Your task to perform on an android device: change timer sound Image 0: 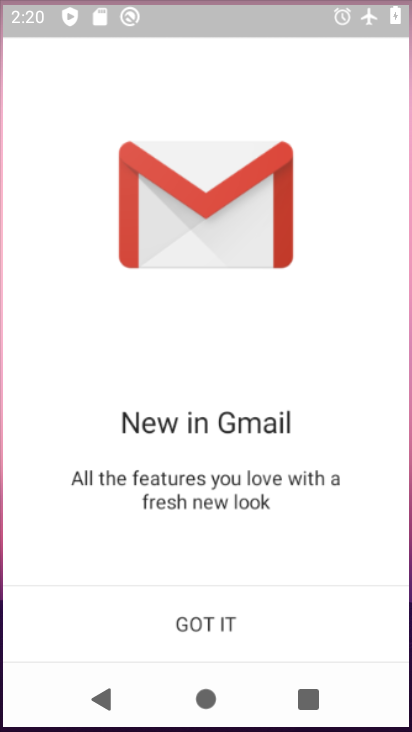
Step 0: drag from (378, 545) to (384, 10)
Your task to perform on an android device: change timer sound Image 1: 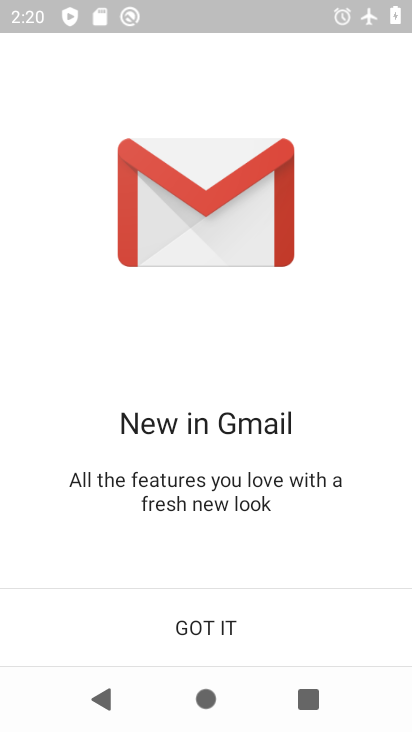
Step 1: press home button
Your task to perform on an android device: change timer sound Image 2: 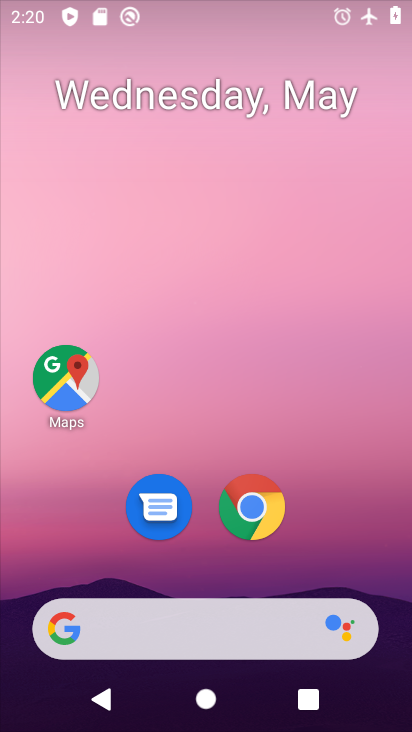
Step 2: drag from (346, 548) to (294, 136)
Your task to perform on an android device: change timer sound Image 3: 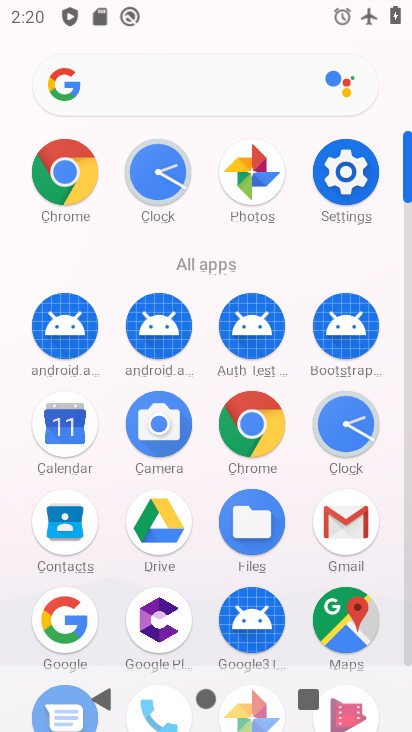
Step 3: click (342, 434)
Your task to perform on an android device: change timer sound Image 4: 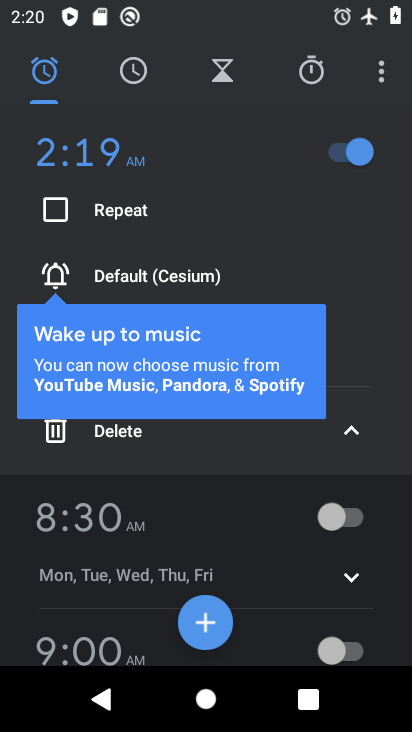
Step 4: drag from (380, 71) to (282, 143)
Your task to perform on an android device: change timer sound Image 5: 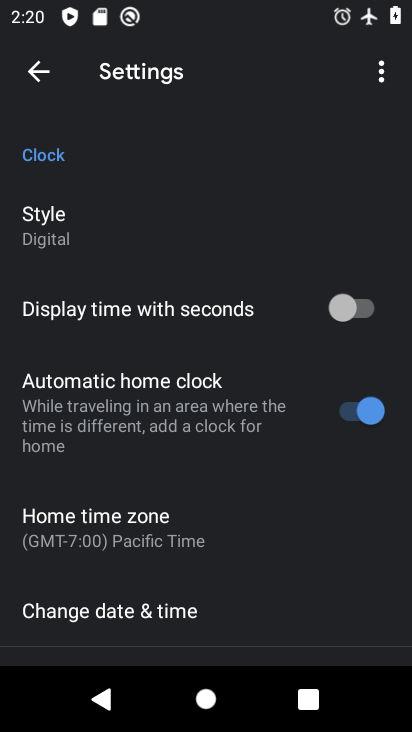
Step 5: drag from (211, 583) to (218, 282)
Your task to perform on an android device: change timer sound Image 6: 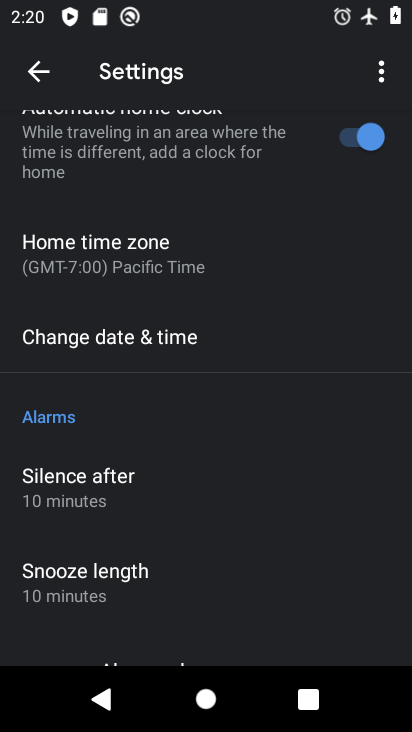
Step 6: drag from (177, 527) to (186, 235)
Your task to perform on an android device: change timer sound Image 7: 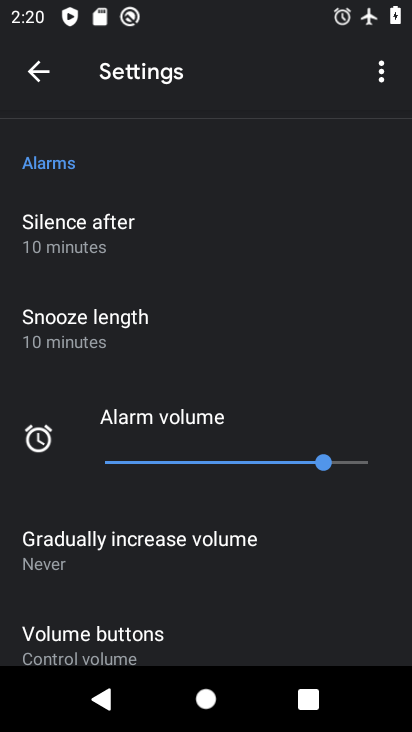
Step 7: drag from (217, 555) to (222, 221)
Your task to perform on an android device: change timer sound Image 8: 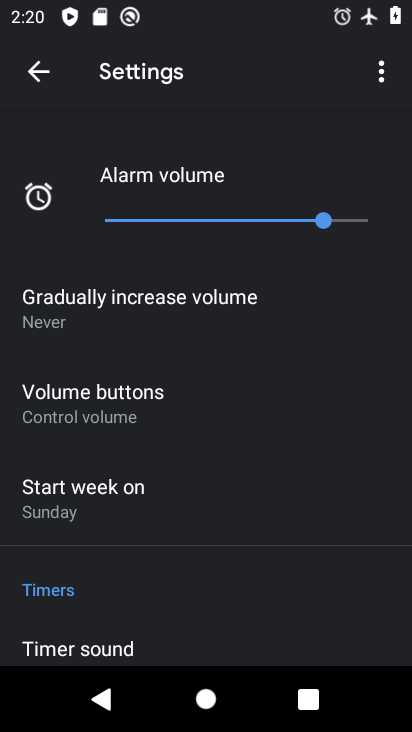
Step 8: drag from (188, 574) to (244, 273)
Your task to perform on an android device: change timer sound Image 9: 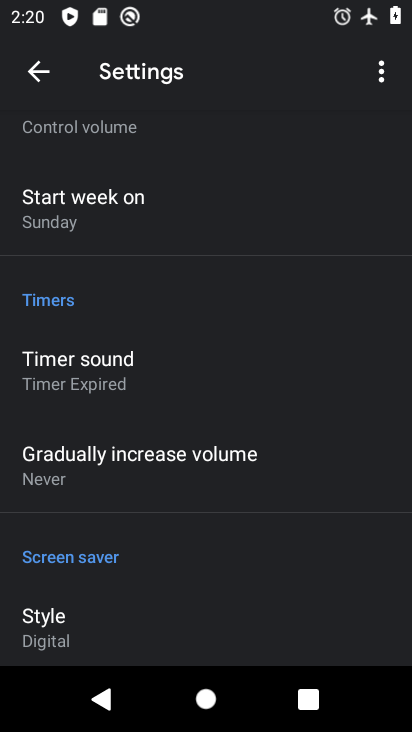
Step 9: click (134, 379)
Your task to perform on an android device: change timer sound Image 10: 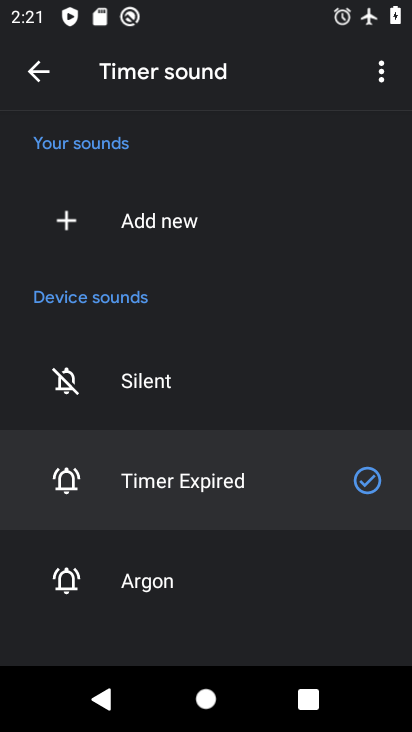
Step 10: click (199, 584)
Your task to perform on an android device: change timer sound Image 11: 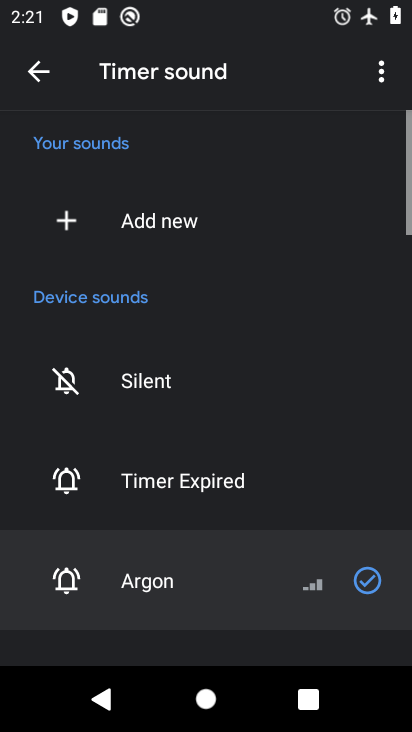
Step 11: task complete